Your task to perform on an android device: Go to Yahoo.com Image 0: 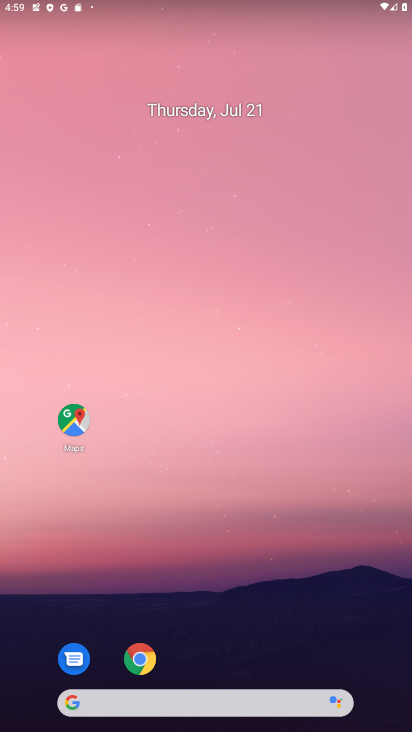
Step 0: click (137, 659)
Your task to perform on an android device: Go to Yahoo.com Image 1: 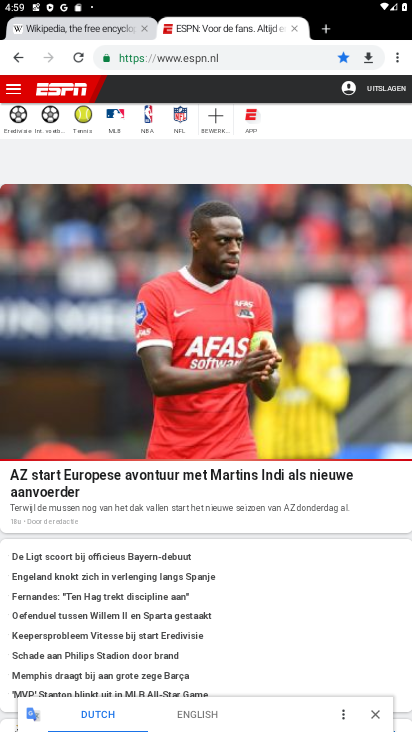
Step 1: click (403, 58)
Your task to perform on an android device: Go to Yahoo.com Image 2: 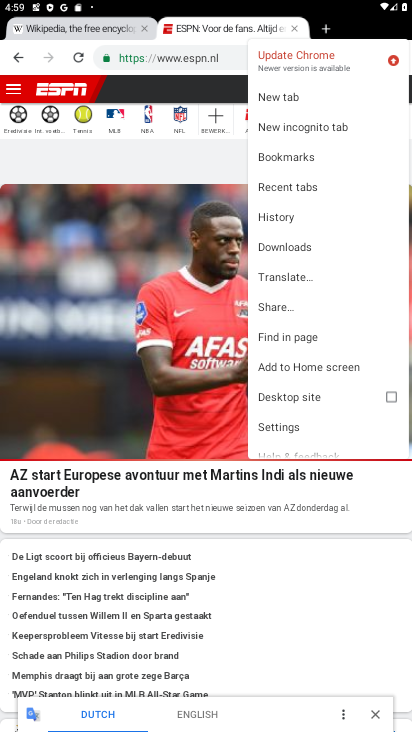
Step 2: click (271, 100)
Your task to perform on an android device: Go to Yahoo.com Image 3: 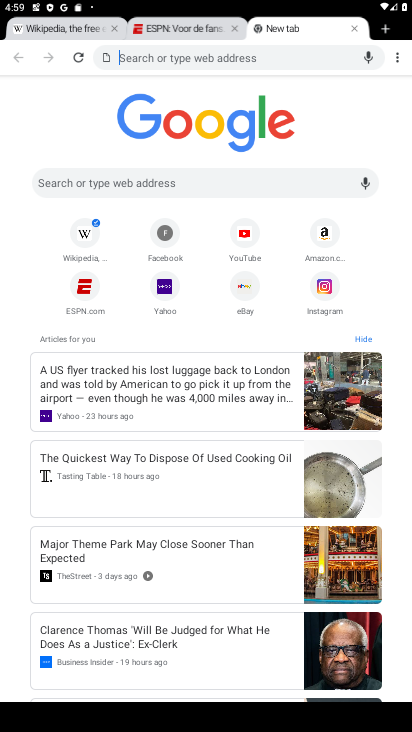
Step 3: click (160, 290)
Your task to perform on an android device: Go to Yahoo.com Image 4: 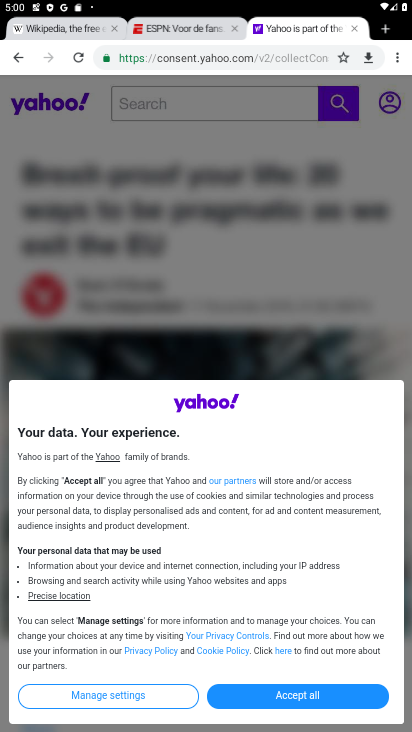
Step 4: click (286, 699)
Your task to perform on an android device: Go to Yahoo.com Image 5: 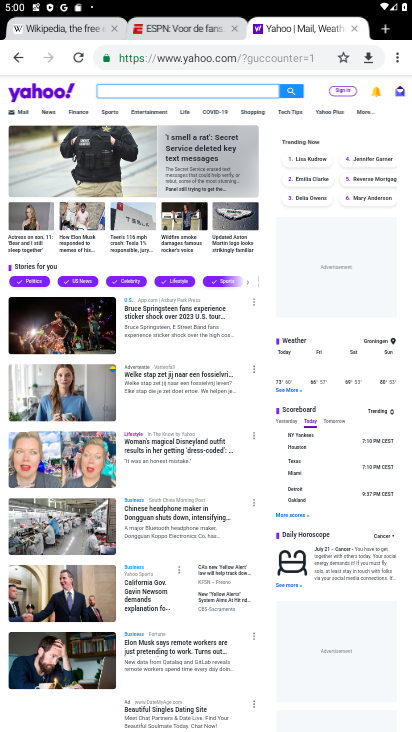
Step 5: task complete